Your task to perform on an android device: delete location history Image 0: 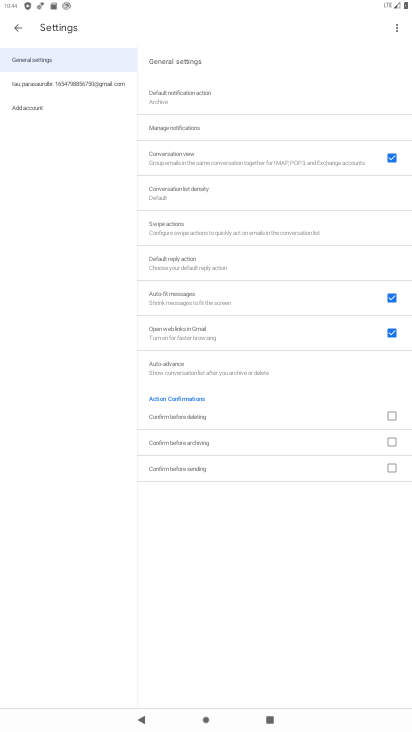
Step 0: press home button
Your task to perform on an android device: delete location history Image 1: 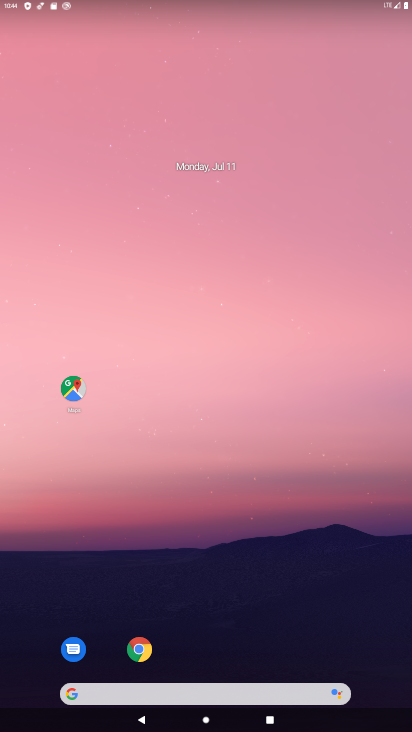
Step 1: drag from (301, 460) to (245, 62)
Your task to perform on an android device: delete location history Image 2: 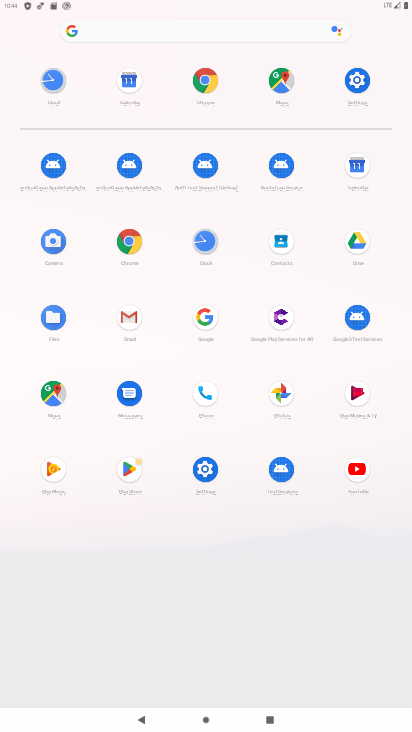
Step 2: click (276, 80)
Your task to perform on an android device: delete location history Image 3: 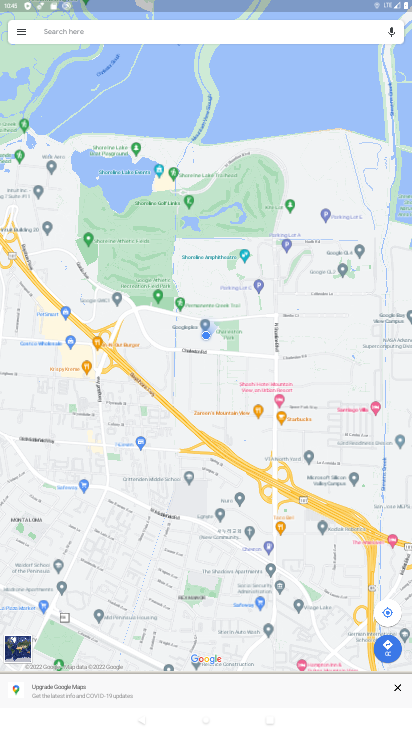
Step 3: click (22, 32)
Your task to perform on an android device: delete location history Image 4: 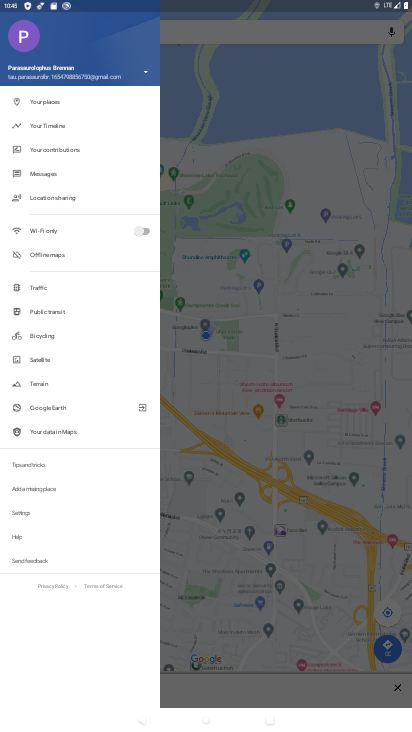
Step 4: click (27, 510)
Your task to perform on an android device: delete location history Image 5: 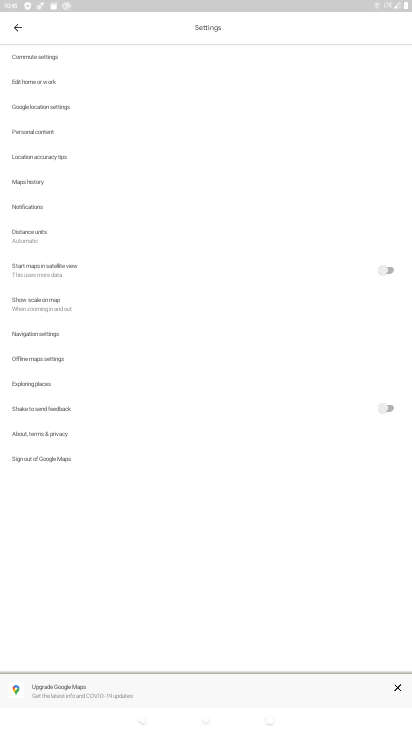
Step 5: click (33, 178)
Your task to perform on an android device: delete location history Image 6: 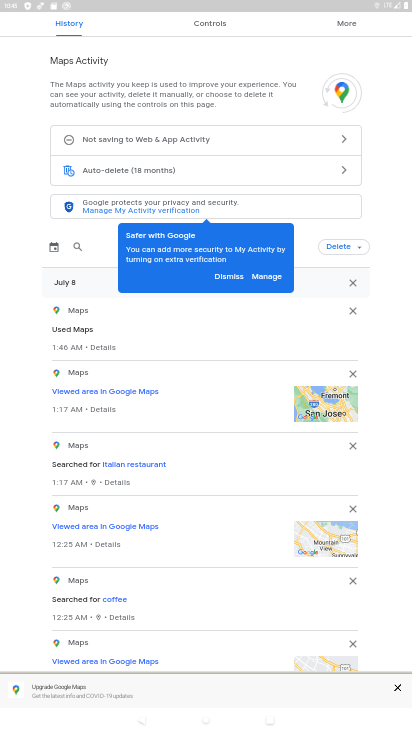
Step 6: click (361, 242)
Your task to perform on an android device: delete location history Image 7: 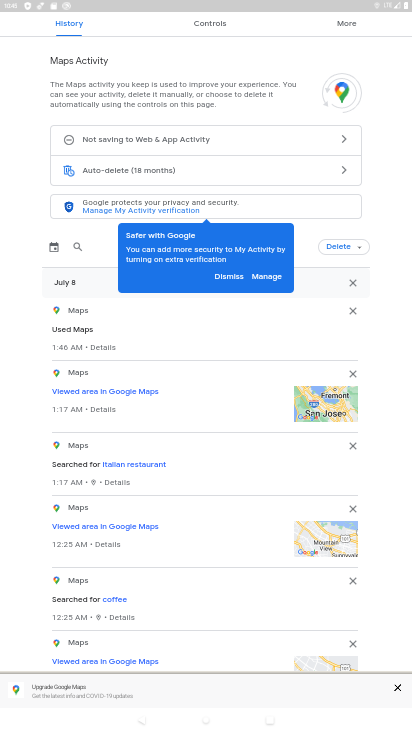
Step 7: click (361, 247)
Your task to perform on an android device: delete location history Image 8: 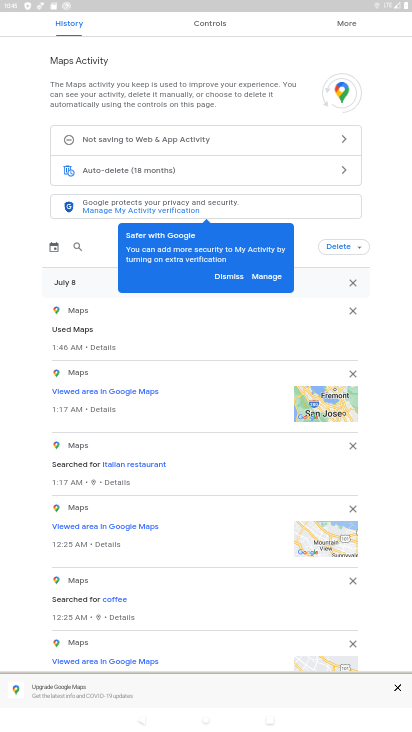
Step 8: click (223, 279)
Your task to perform on an android device: delete location history Image 9: 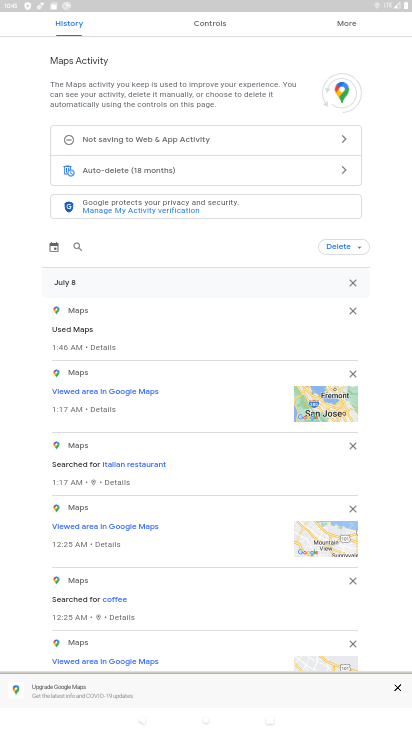
Step 9: click (362, 250)
Your task to perform on an android device: delete location history Image 10: 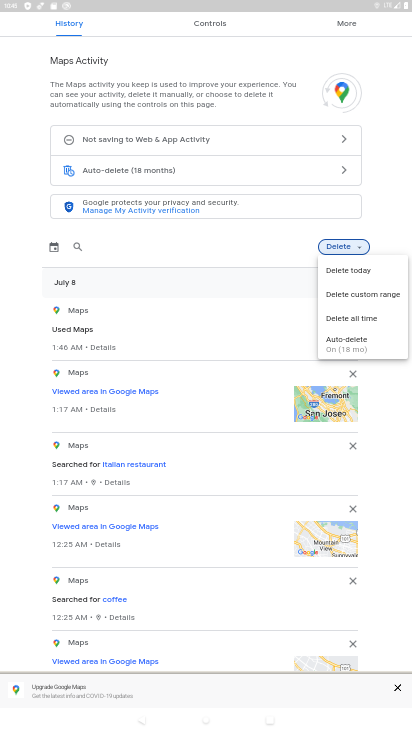
Step 10: click (357, 317)
Your task to perform on an android device: delete location history Image 11: 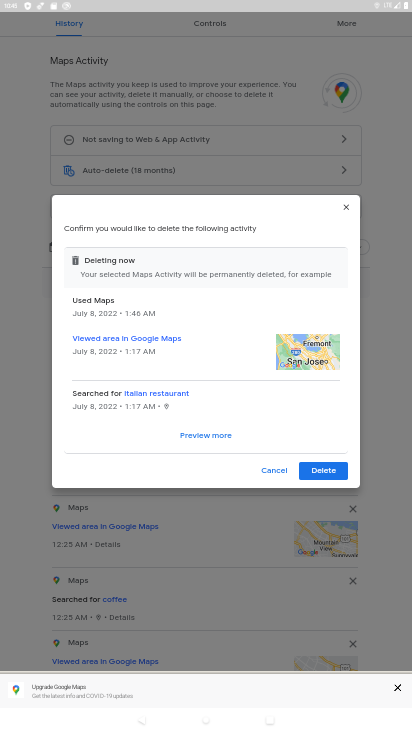
Step 11: click (336, 465)
Your task to perform on an android device: delete location history Image 12: 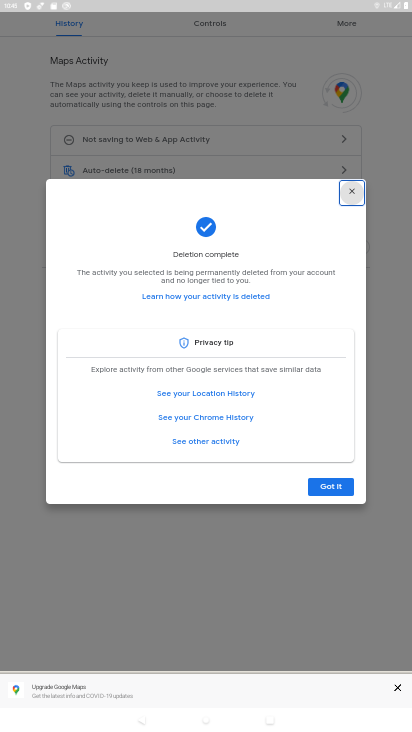
Step 12: task complete